Your task to perform on an android device: Open Maps and search for coffee Image 0: 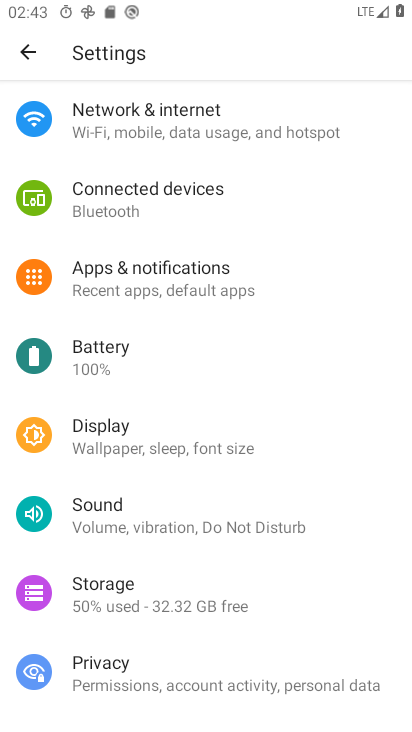
Step 0: press home button
Your task to perform on an android device: Open Maps and search for coffee Image 1: 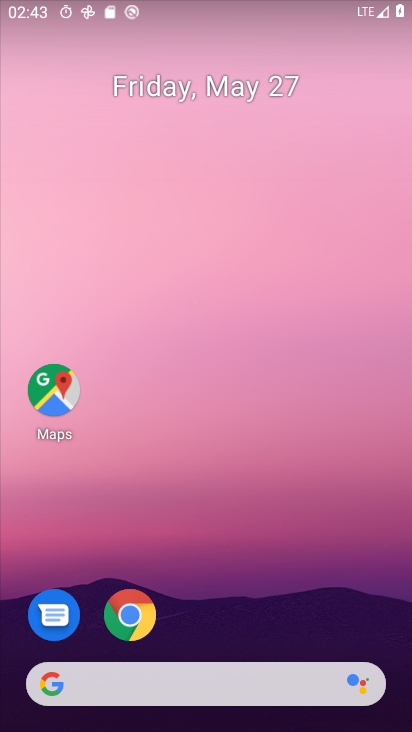
Step 1: drag from (346, 616) to (349, 164)
Your task to perform on an android device: Open Maps and search for coffee Image 2: 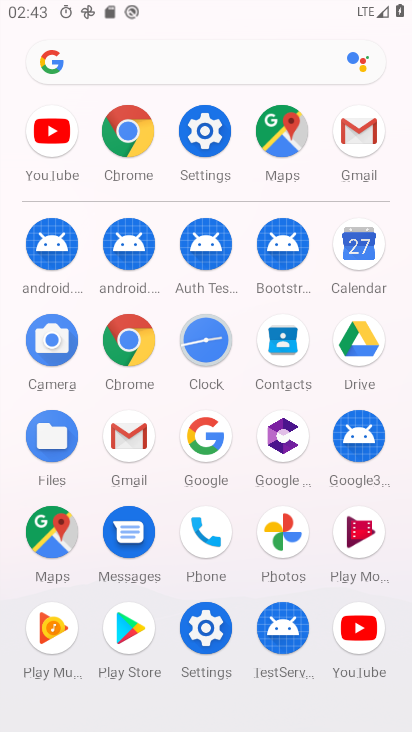
Step 2: click (65, 541)
Your task to perform on an android device: Open Maps and search for coffee Image 3: 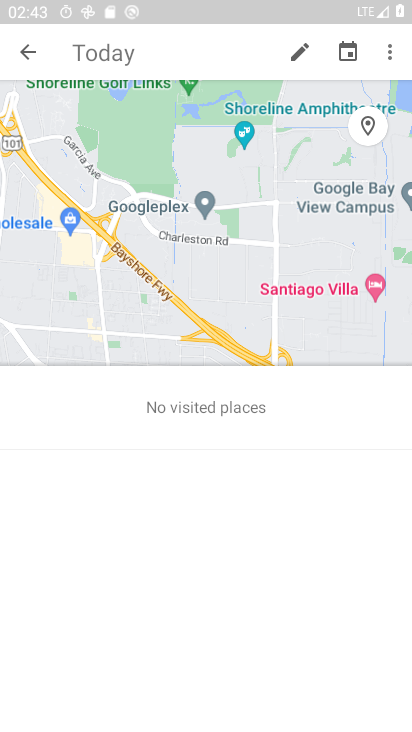
Step 3: click (27, 54)
Your task to perform on an android device: Open Maps and search for coffee Image 4: 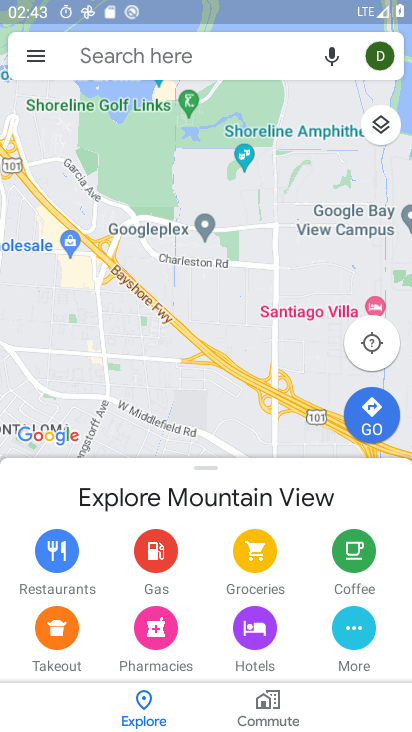
Step 4: click (193, 63)
Your task to perform on an android device: Open Maps and search for coffee Image 5: 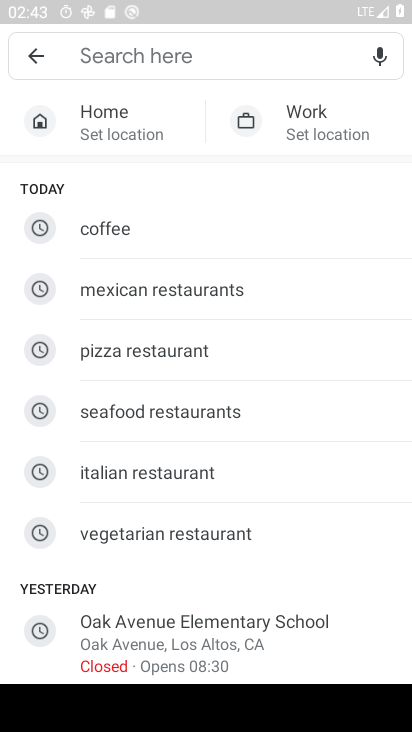
Step 5: type "xoffee"
Your task to perform on an android device: Open Maps and search for coffee Image 6: 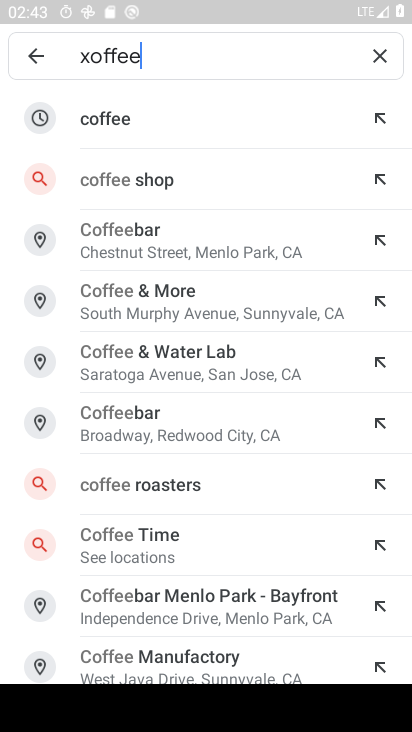
Step 6: click (237, 127)
Your task to perform on an android device: Open Maps and search for coffee Image 7: 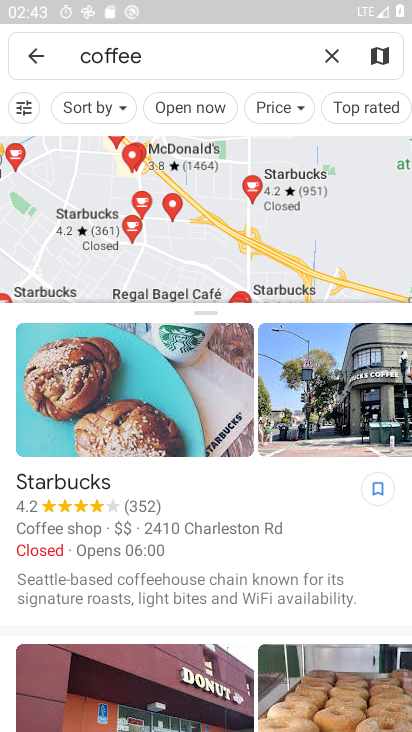
Step 7: task complete